Your task to perform on an android device: Do I have any events this weekend? Image 0: 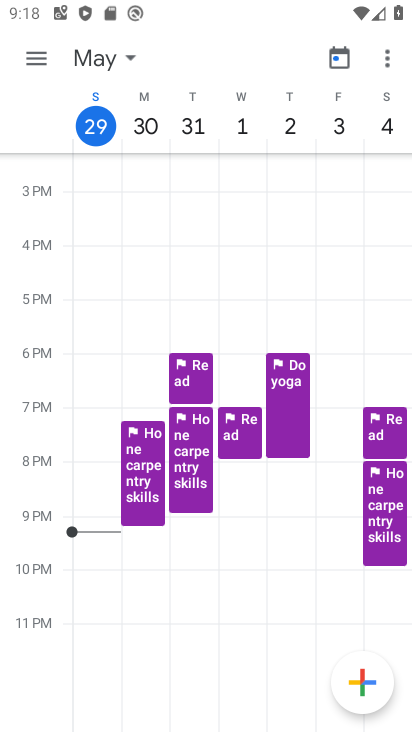
Step 0: click (389, 115)
Your task to perform on an android device: Do I have any events this weekend? Image 1: 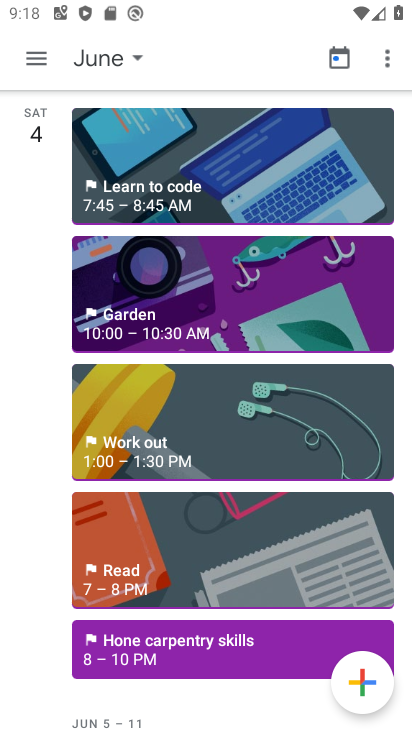
Step 1: task complete